Your task to perform on an android device: stop showing notifications on the lock screen Image 0: 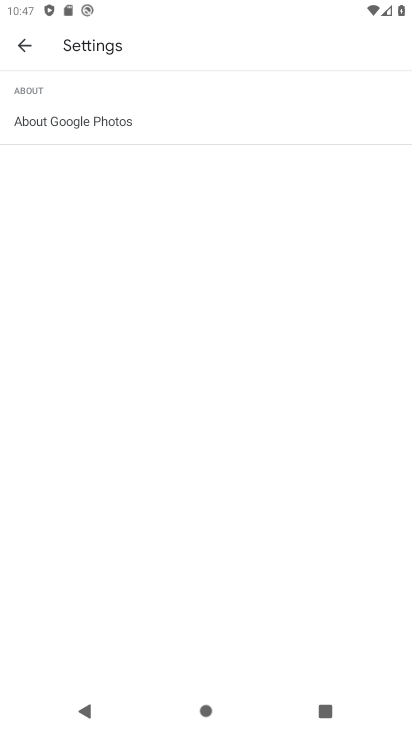
Step 0: press home button
Your task to perform on an android device: stop showing notifications on the lock screen Image 1: 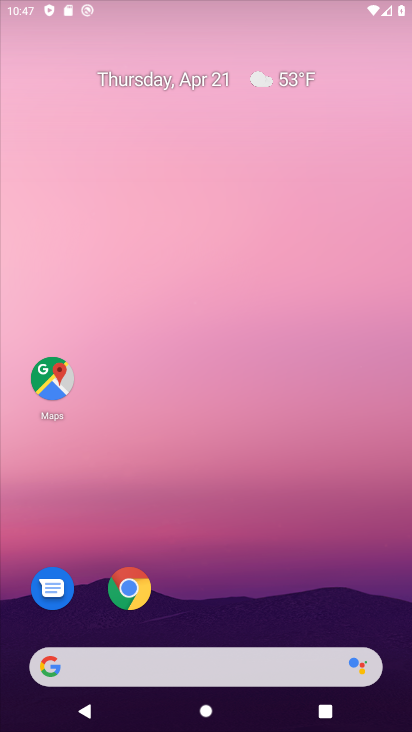
Step 1: drag from (290, 498) to (203, 0)
Your task to perform on an android device: stop showing notifications on the lock screen Image 2: 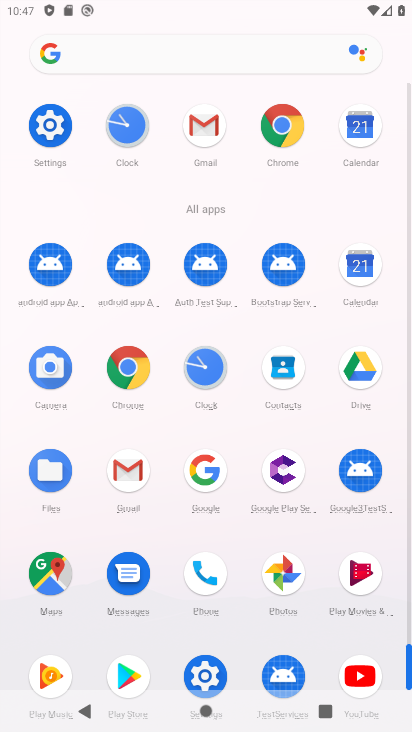
Step 2: click (51, 136)
Your task to perform on an android device: stop showing notifications on the lock screen Image 3: 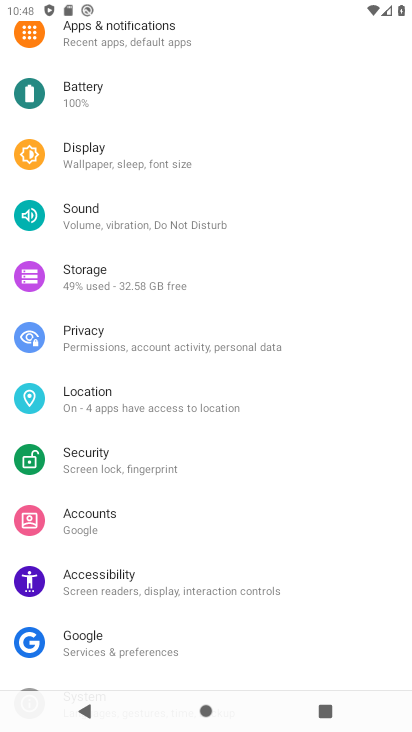
Step 3: drag from (234, 100) to (203, 518)
Your task to perform on an android device: stop showing notifications on the lock screen Image 4: 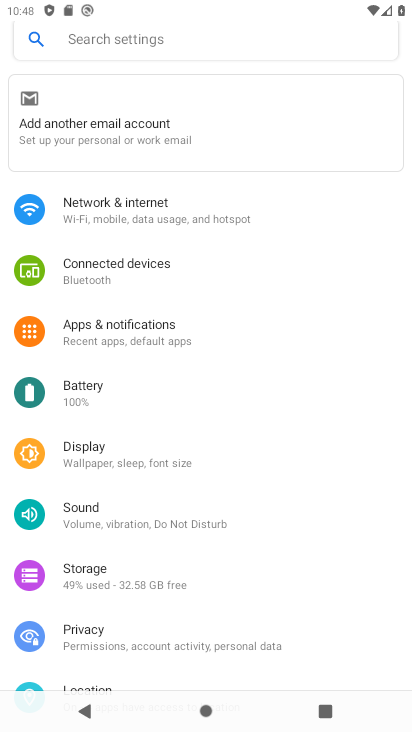
Step 4: click (113, 338)
Your task to perform on an android device: stop showing notifications on the lock screen Image 5: 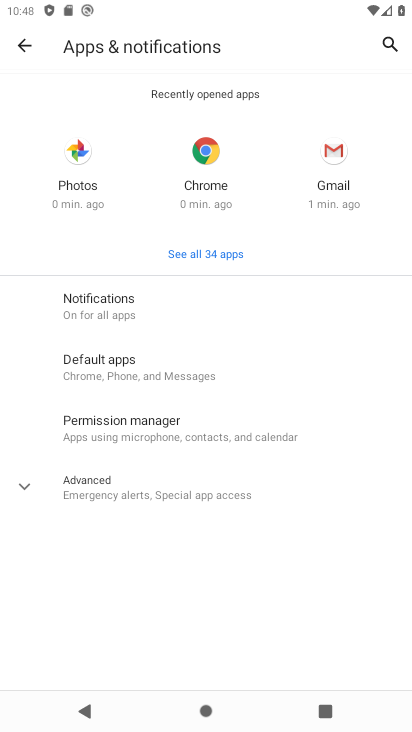
Step 5: click (124, 301)
Your task to perform on an android device: stop showing notifications on the lock screen Image 6: 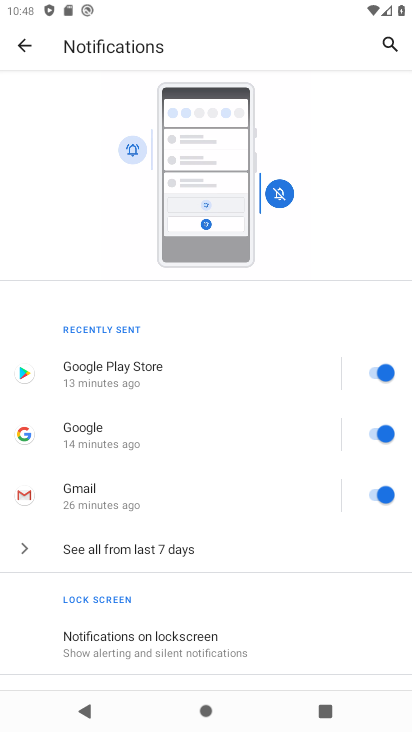
Step 6: click (155, 660)
Your task to perform on an android device: stop showing notifications on the lock screen Image 7: 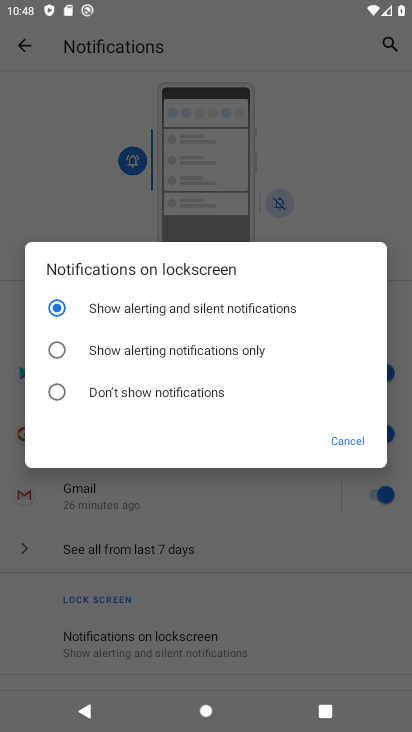
Step 7: click (155, 390)
Your task to perform on an android device: stop showing notifications on the lock screen Image 8: 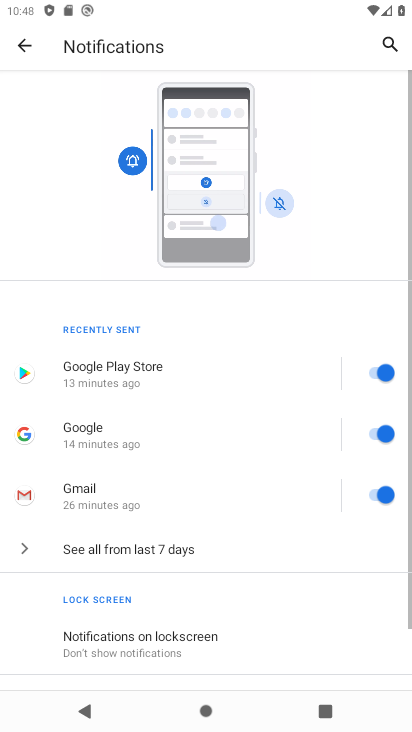
Step 8: task complete